Your task to perform on an android device: Go to location settings Image 0: 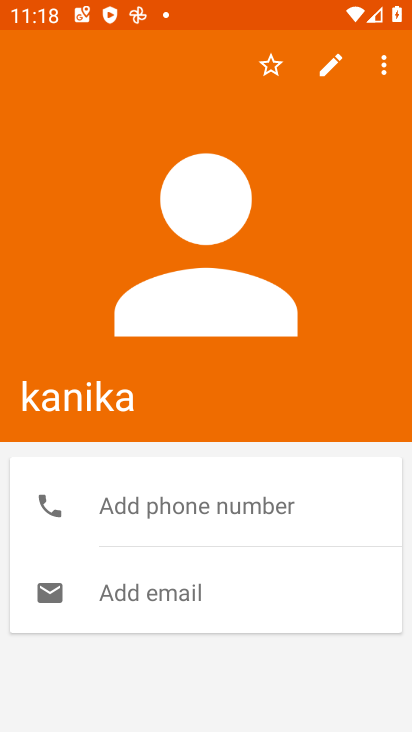
Step 0: press home button
Your task to perform on an android device: Go to location settings Image 1: 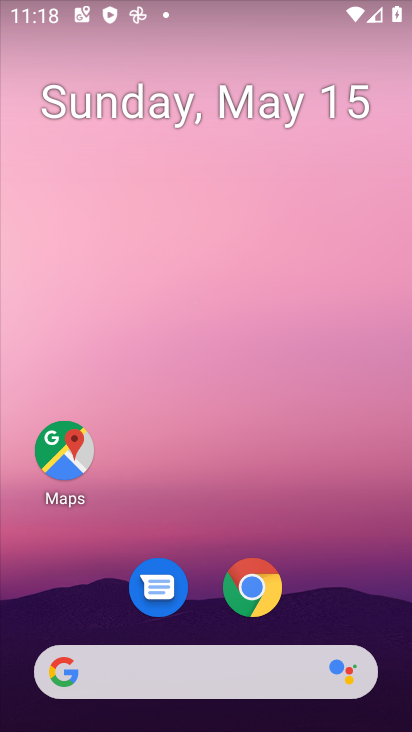
Step 1: drag from (378, 644) to (282, 56)
Your task to perform on an android device: Go to location settings Image 2: 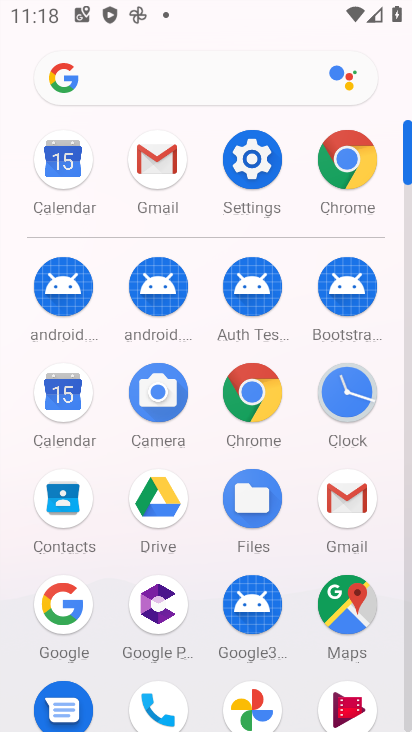
Step 2: click (255, 157)
Your task to perform on an android device: Go to location settings Image 3: 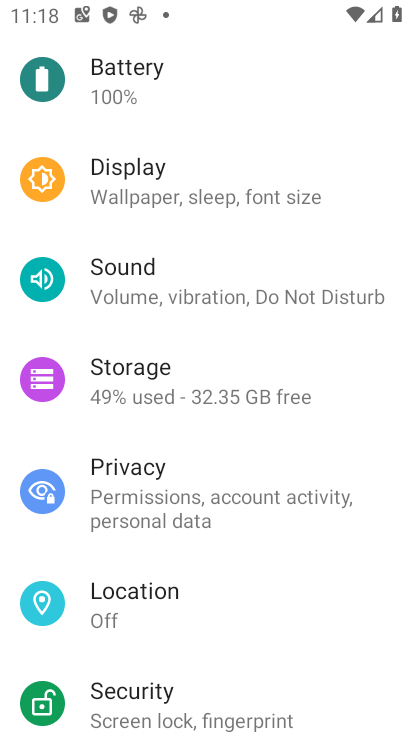
Step 3: click (216, 592)
Your task to perform on an android device: Go to location settings Image 4: 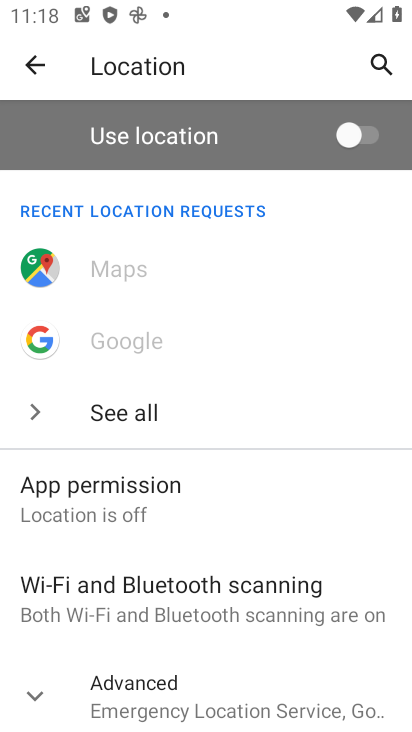
Step 4: task complete